Your task to perform on an android device: delete location history Image 0: 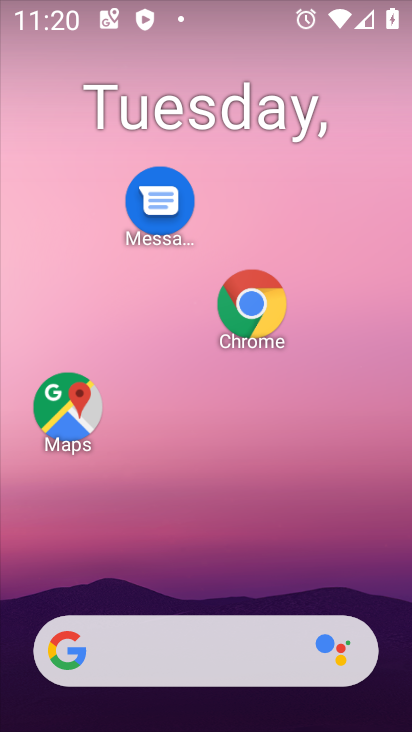
Step 0: drag from (217, 564) to (272, 236)
Your task to perform on an android device: delete location history Image 1: 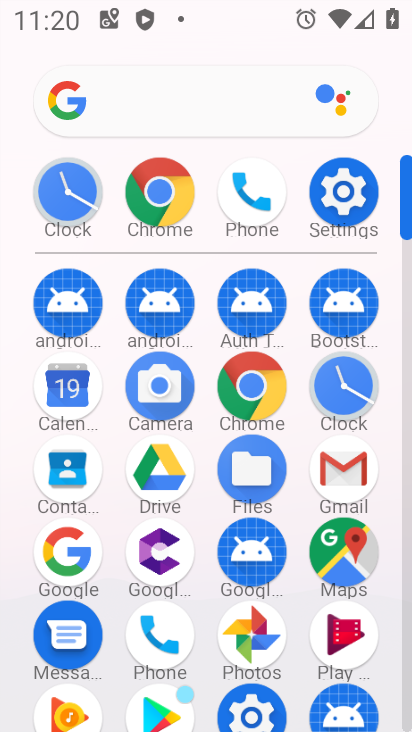
Step 1: click (235, 374)
Your task to perform on an android device: delete location history Image 2: 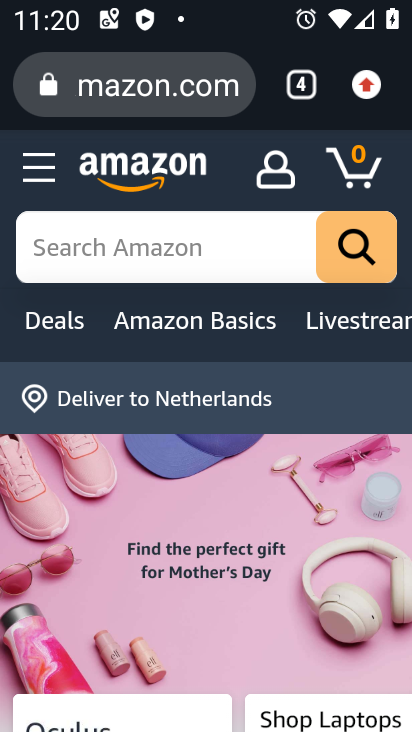
Step 2: press home button
Your task to perform on an android device: delete location history Image 3: 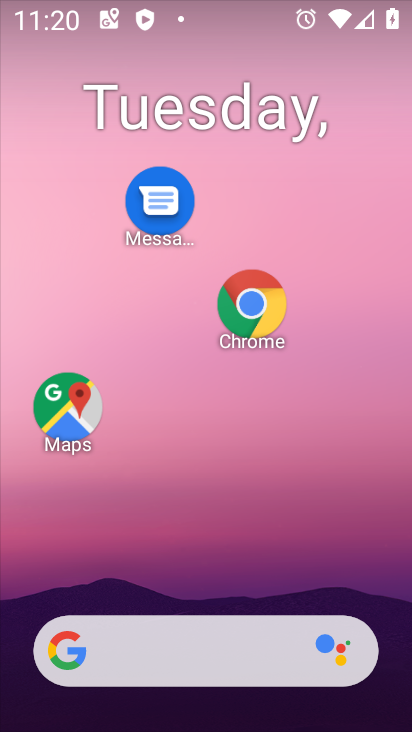
Step 3: drag from (238, 588) to (310, 240)
Your task to perform on an android device: delete location history Image 4: 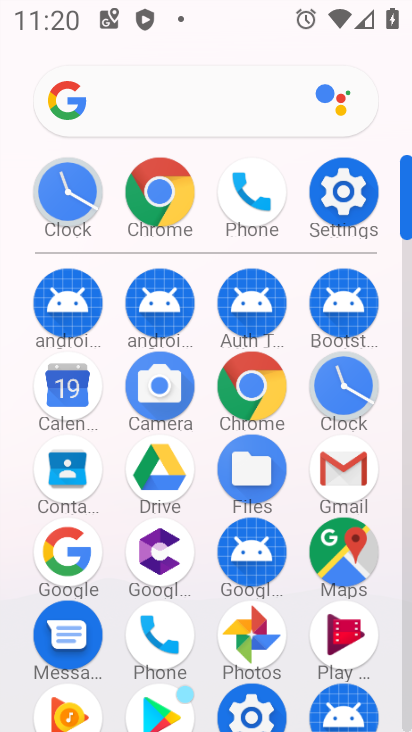
Step 4: click (352, 544)
Your task to perform on an android device: delete location history Image 5: 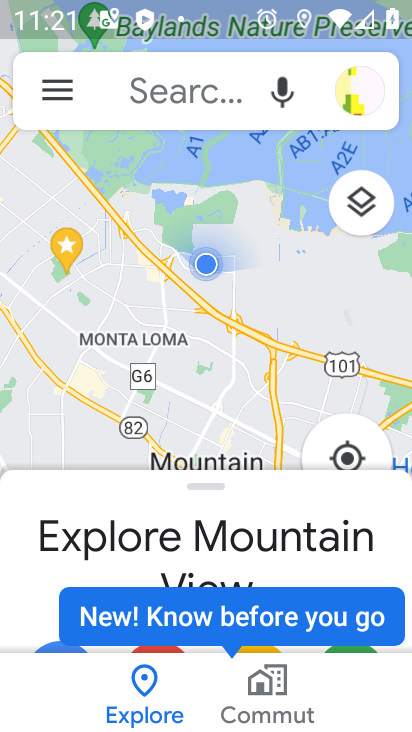
Step 5: click (61, 76)
Your task to perform on an android device: delete location history Image 6: 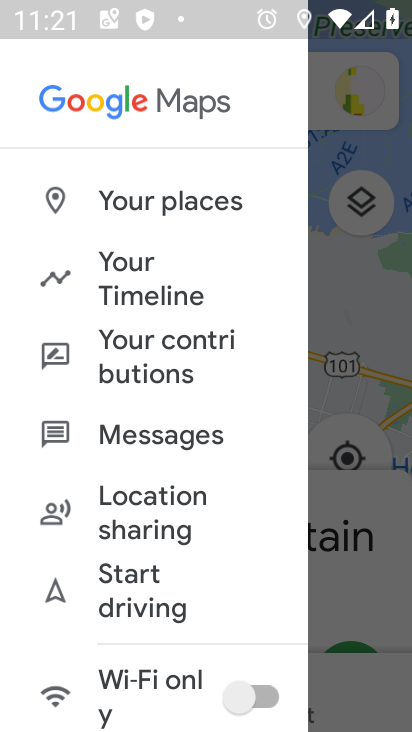
Step 6: click (129, 267)
Your task to perform on an android device: delete location history Image 7: 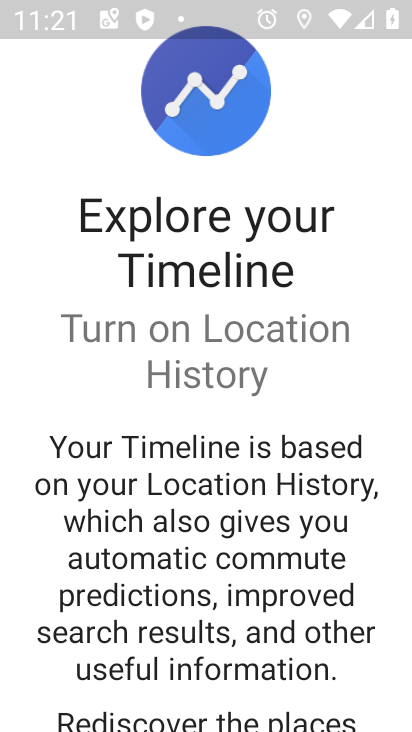
Step 7: drag from (254, 626) to (347, 135)
Your task to perform on an android device: delete location history Image 8: 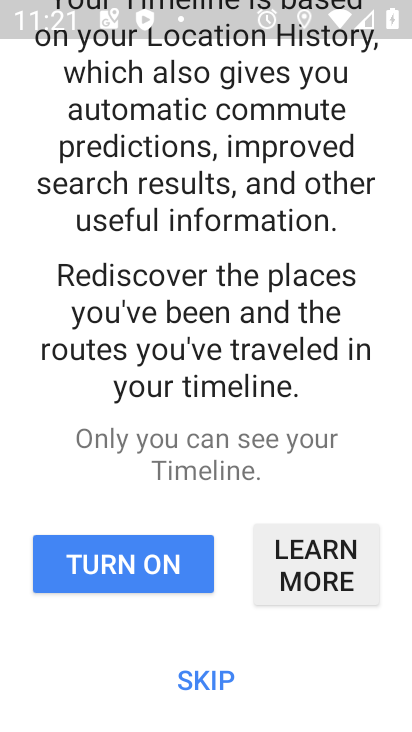
Step 8: click (212, 678)
Your task to perform on an android device: delete location history Image 9: 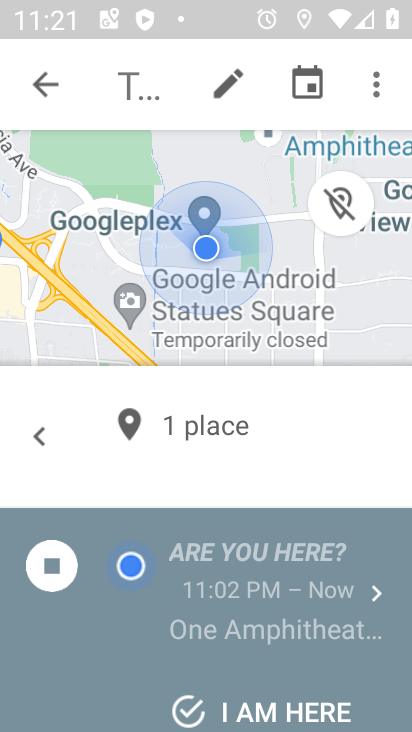
Step 9: click (375, 76)
Your task to perform on an android device: delete location history Image 10: 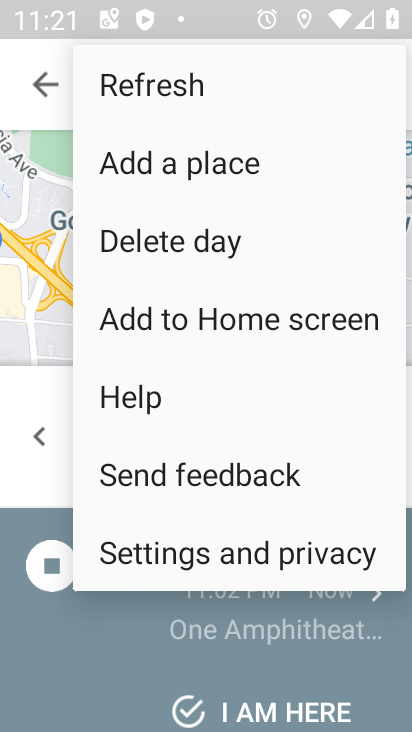
Step 10: click (202, 546)
Your task to perform on an android device: delete location history Image 11: 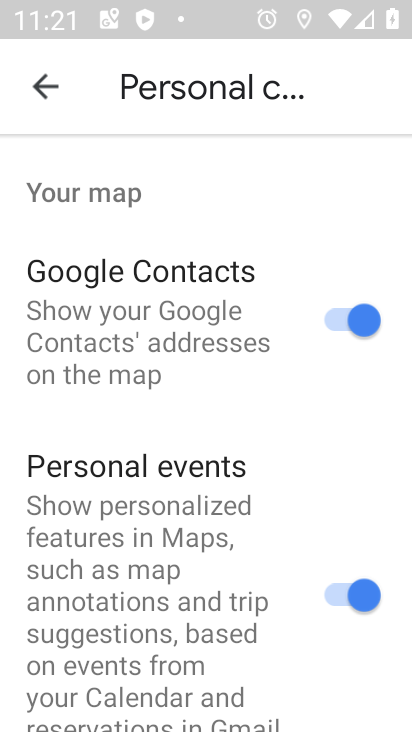
Step 11: drag from (144, 637) to (246, 187)
Your task to perform on an android device: delete location history Image 12: 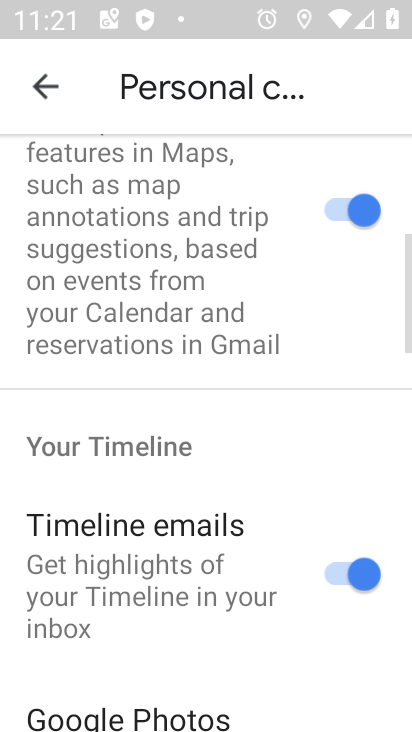
Step 12: drag from (157, 594) to (255, 105)
Your task to perform on an android device: delete location history Image 13: 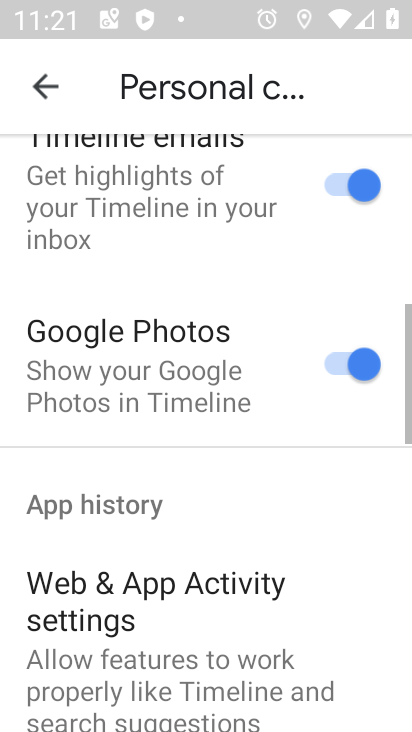
Step 13: drag from (166, 672) to (254, 142)
Your task to perform on an android device: delete location history Image 14: 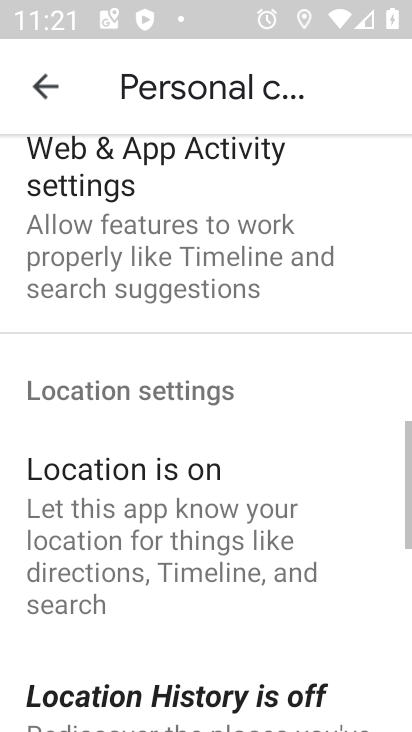
Step 14: drag from (151, 656) to (241, 193)
Your task to perform on an android device: delete location history Image 15: 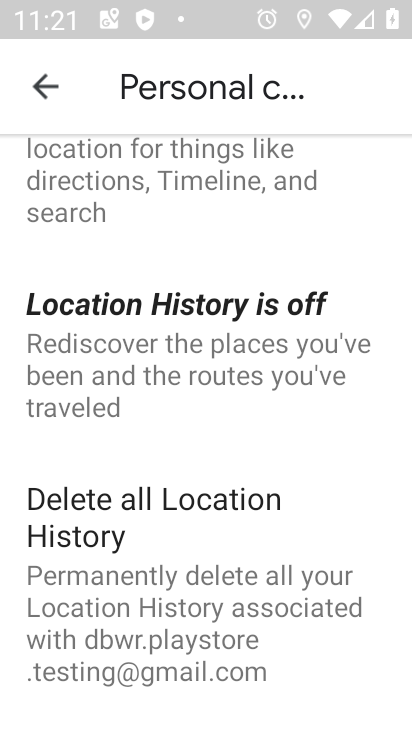
Step 15: click (166, 564)
Your task to perform on an android device: delete location history Image 16: 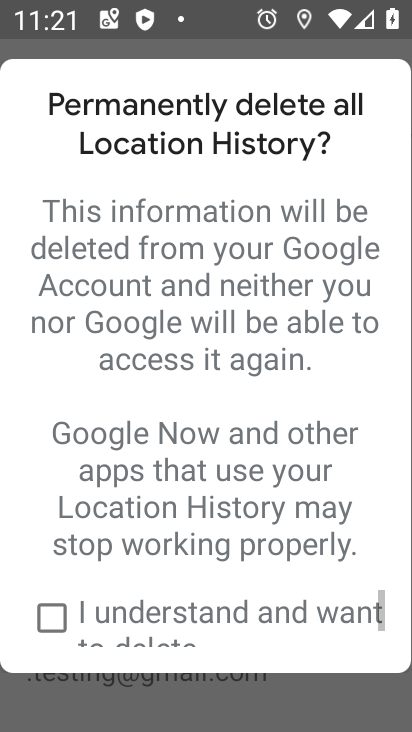
Step 16: drag from (131, 453) to (275, 161)
Your task to perform on an android device: delete location history Image 17: 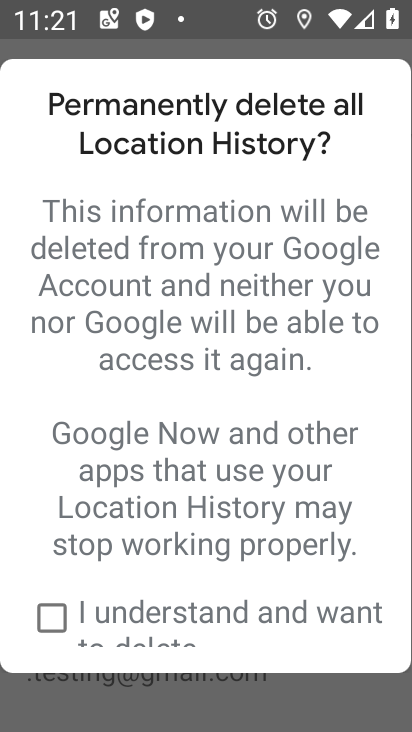
Step 17: drag from (189, 481) to (226, 261)
Your task to perform on an android device: delete location history Image 18: 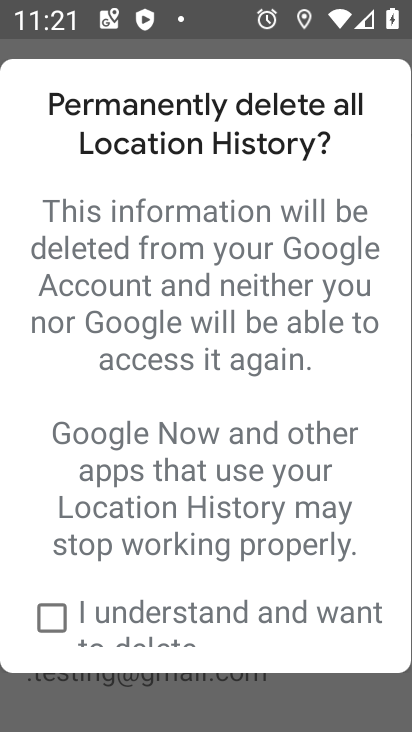
Step 18: drag from (105, 631) to (221, 523)
Your task to perform on an android device: delete location history Image 19: 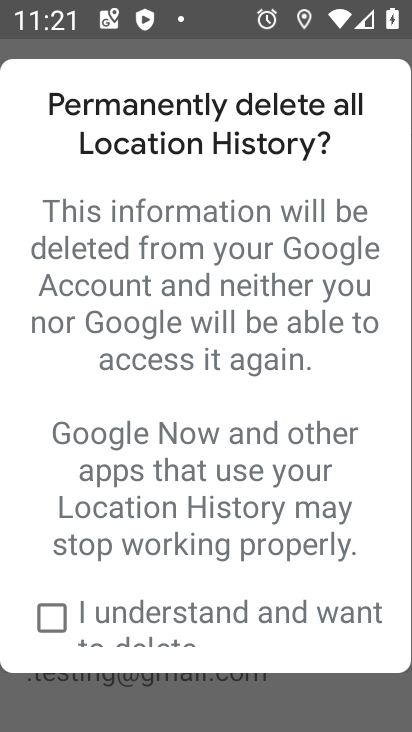
Step 19: click (35, 611)
Your task to perform on an android device: delete location history Image 20: 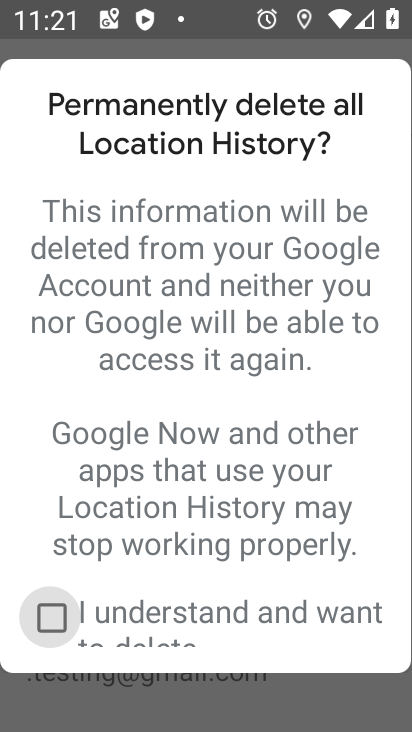
Step 20: click (46, 603)
Your task to perform on an android device: delete location history Image 21: 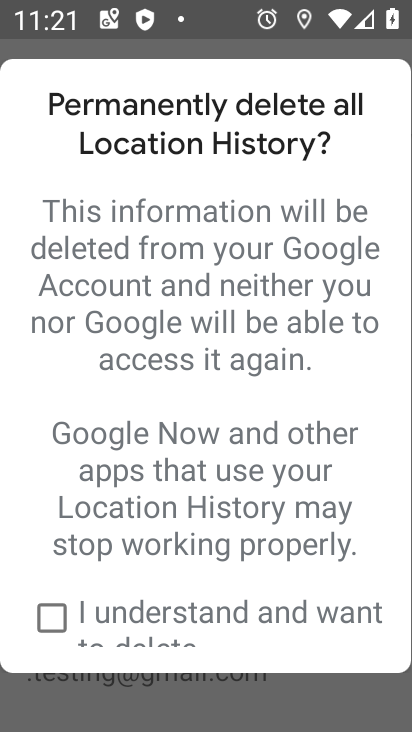
Step 21: drag from (210, 624) to (238, 581)
Your task to perform on an android device: delete location history Image 22: 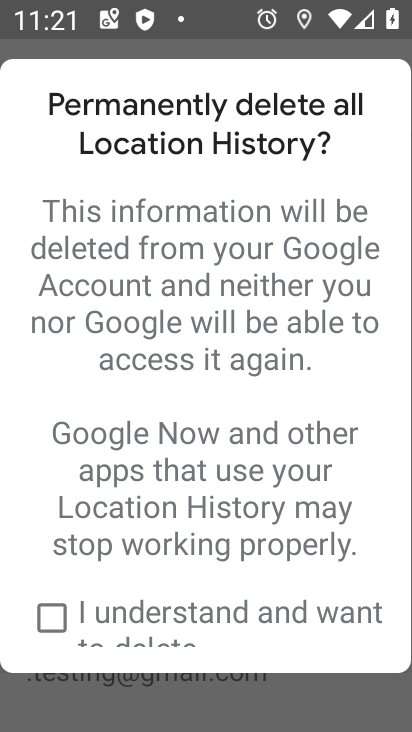
Step 22: press back button
Your task to perform on an android device: delete location history Image 23: 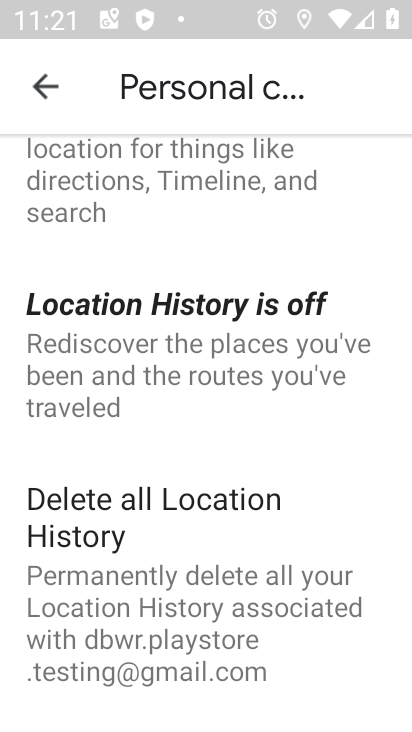
Step 23: drag from (199, 646) to (314, 272)
Your task to perform on an android device: delete location history Image 24: 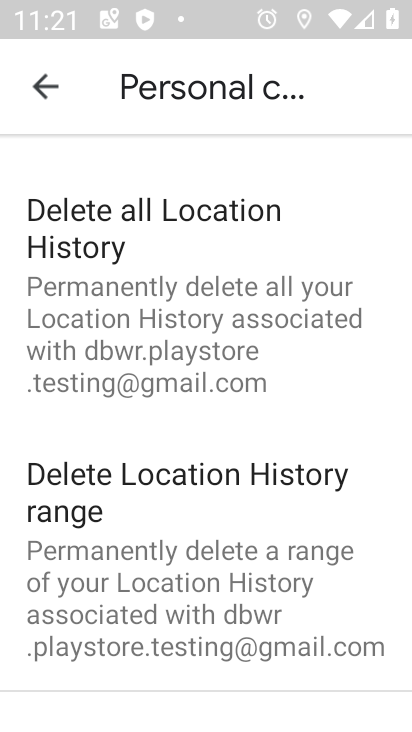
Step 24: click (198, 335)
Your task to perform on an android device: delete location history Image 25: 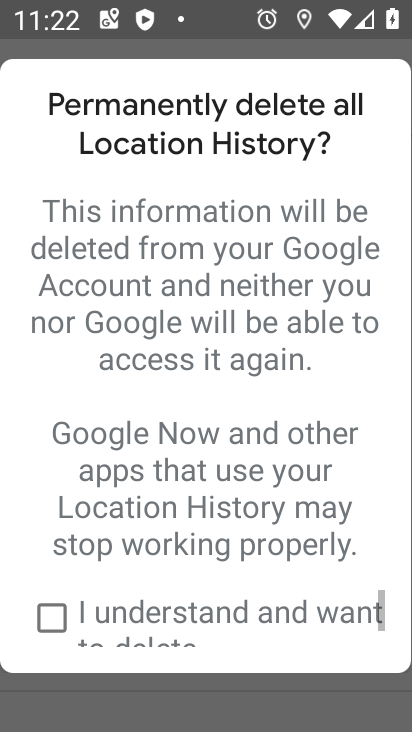
Step 25: drag from (244, 588) to (238, 710)
Your task to perform on an android device: delete location history Image 26: 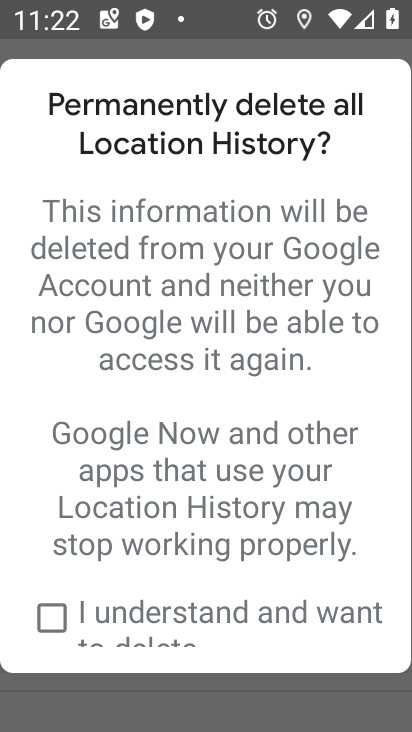
Step 26: drag from (200, 330) to (183, 542)
Your task to perform on an android device: delete location history Image 27: 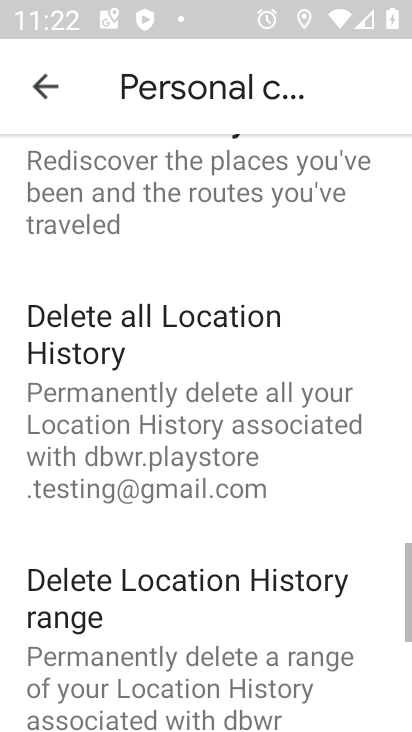
Step 27: click (207, 420)
Your task to perform on an android device: delete location history Image 28: 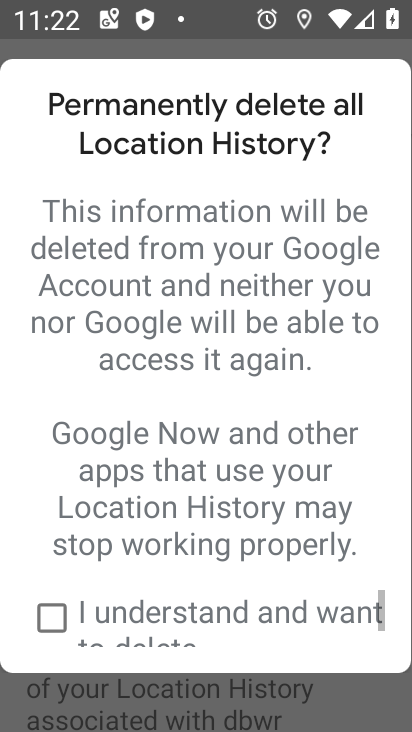
Step 28: click (46, 627)
Your task to perform on an android device: delete location history Image 29: 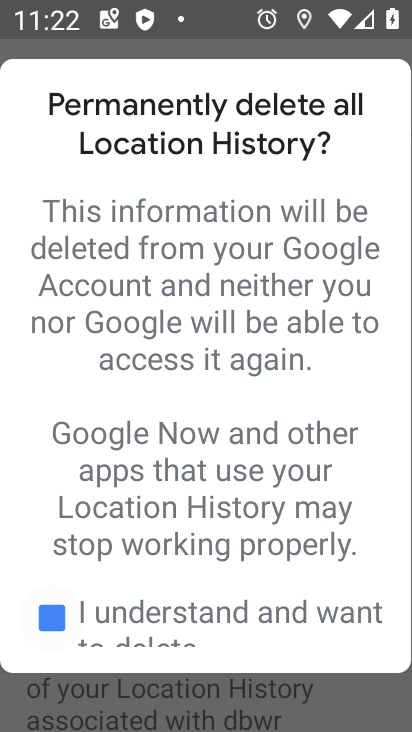
Step 29: task complete